Your task to perform on an android device: set the stopwatch Image 0: 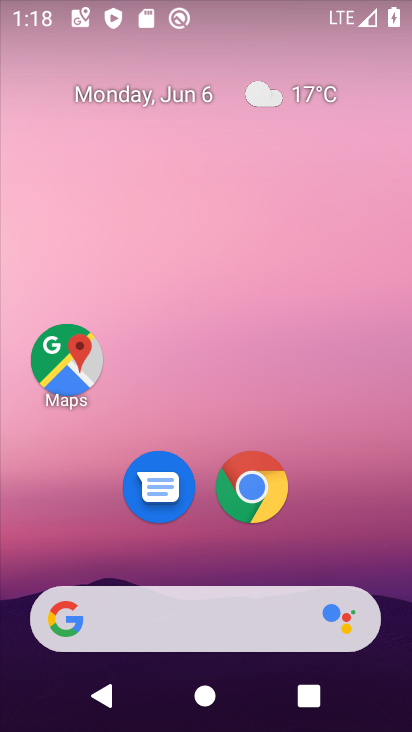
Step 0: drag from (181, 561) to (245, 118)
Your task to perform on an android device: set the stopwatch Image 1: 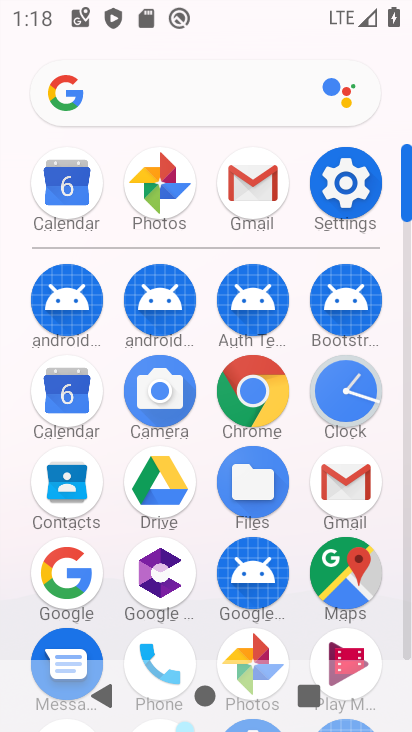
Step 1: click (339, 410)
Your task to perform on an android device: set the stopwatch Image 2: 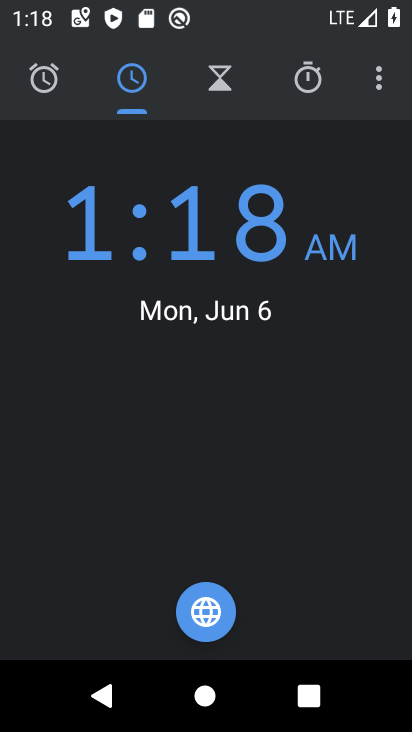
Step 2: click (316, 76)
Your task to perform on an android device: set the stopwatch Image 3: 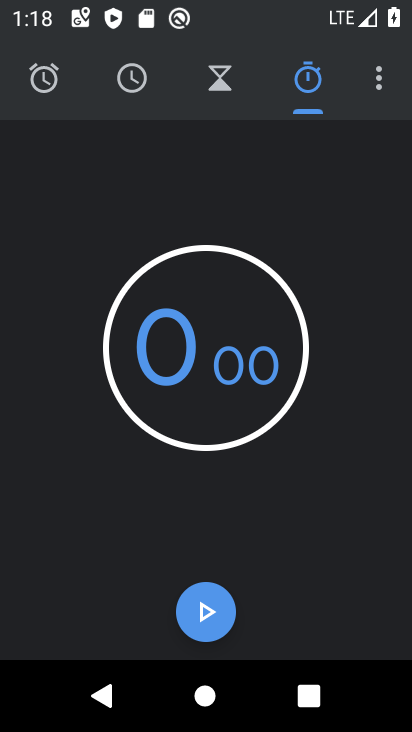
Step 3: click (215, 334)
Your task to perform on an android device: set the stopwatch Image 4: 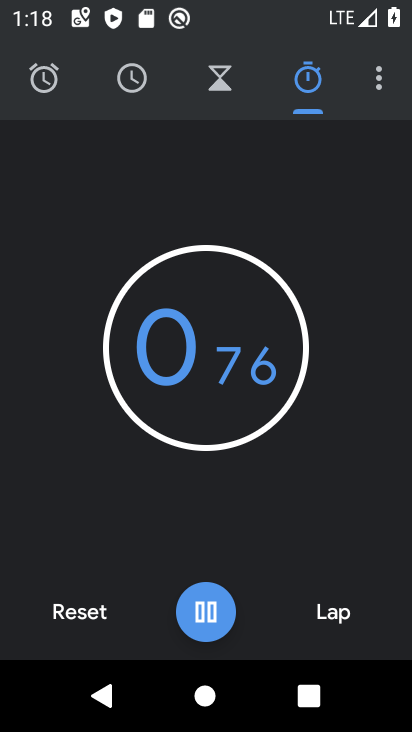
Step 4: click (220, 345)
Your task to perform on an android device: set the stopwatch Image 5: 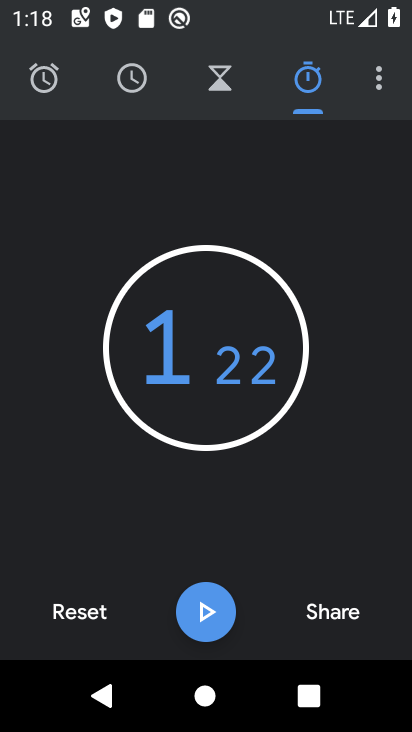
Step 5: task complete